Your task to perform on an android device: Go to Android settings Image 0: 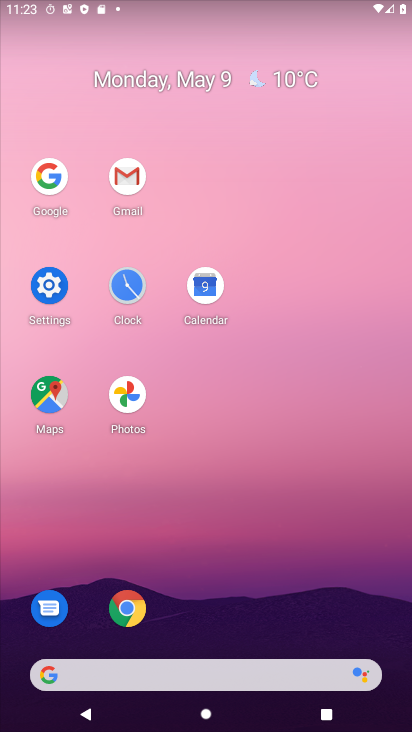
Step 0: click (49, 283)
Your task to perform on an android device: Go to Android settings Image 1: 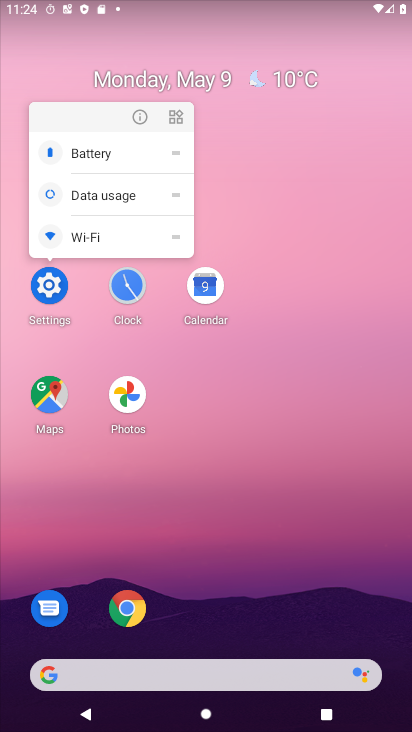
Step 1: click (40, 282)
Your task to perform on an android device: Go to Android settings Image 2: 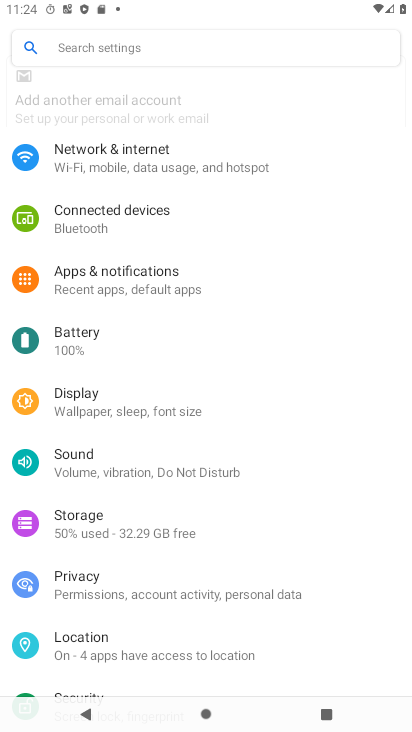
Step 2: task complete